Your task to perform on an android device: Show the shopping cart on costco. Add "razer huntsman" to the cart on costco, then select checkout. Image 0: 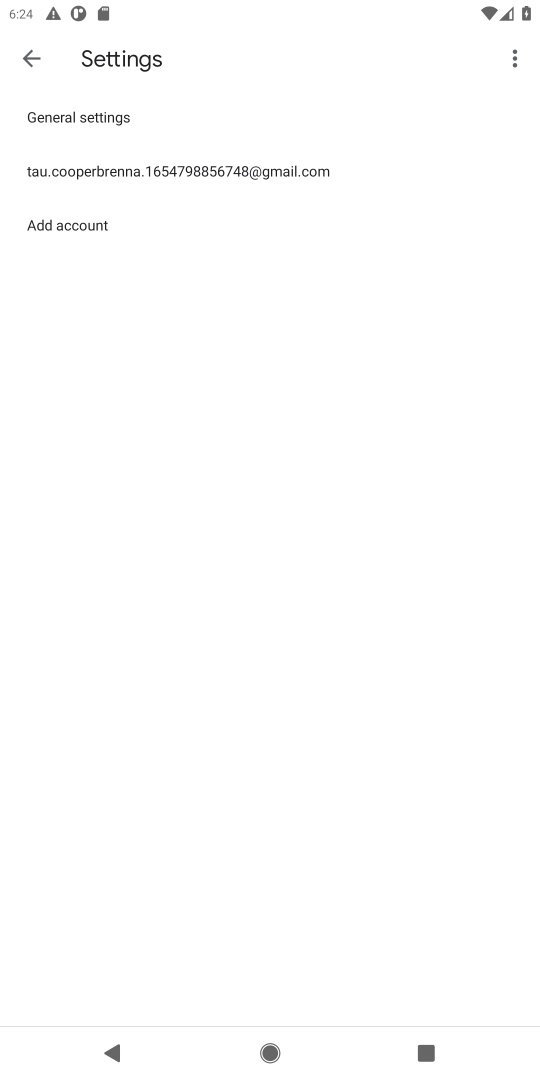
Step 0: press home button
Your task to perform on an android device: Show the shopping cart on costco. Add "razer huntsman" to the cart on costco, then select checkout. Image 1: 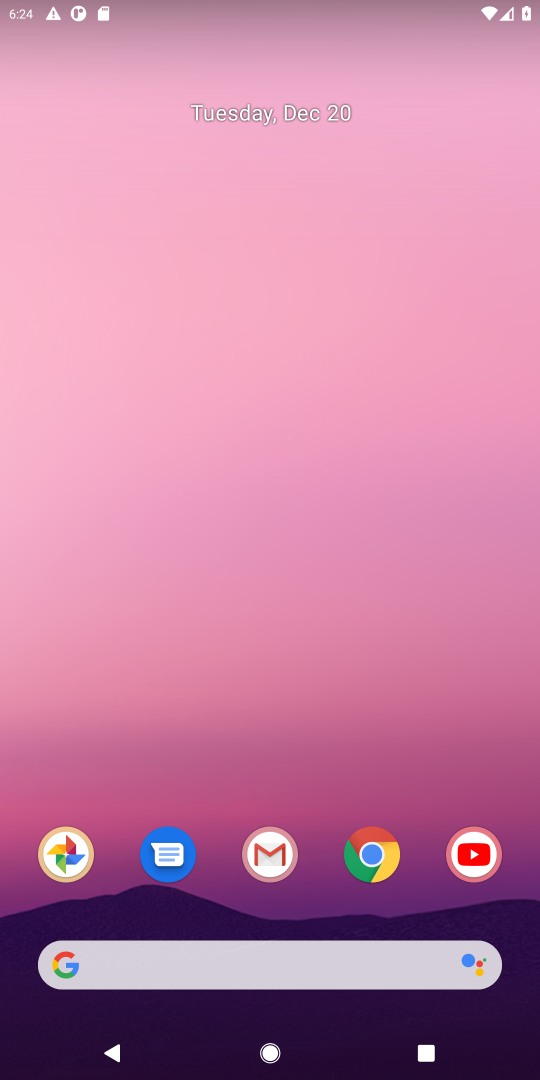
Step 1: click (361, 855)
Your task to perform on an android device: Show the shopping cart on costco. Add "razer huntsman" to the cart on costco, then select checkout. Image 2: 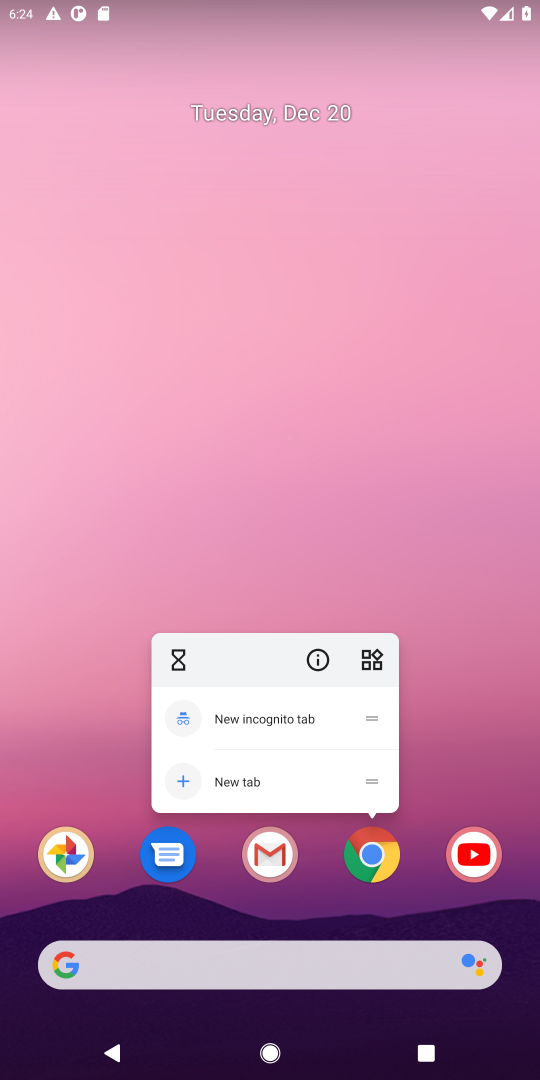
Step 2: click (365, 860)
Your task to perform on an android device: Show the shopping cart on costco. Add "razer huntsman" to the cart on costco, then select checkout. Image 3: 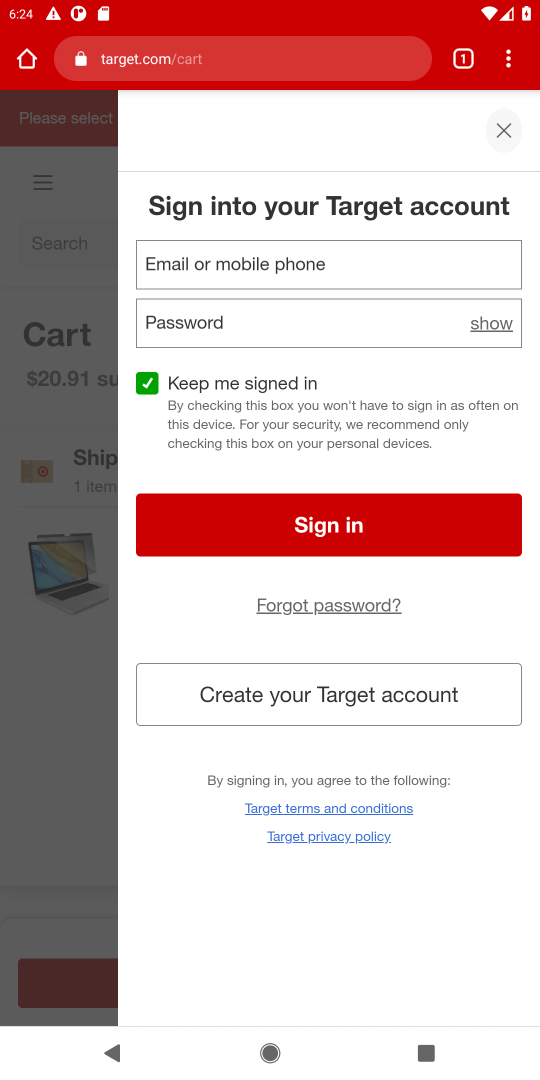
Step 3: click (170, 65)
Your task to perform on an android device: Show the shopping cart on costco. Add "razer huntsman" to the cart on costco, then select checkout. Image 4: 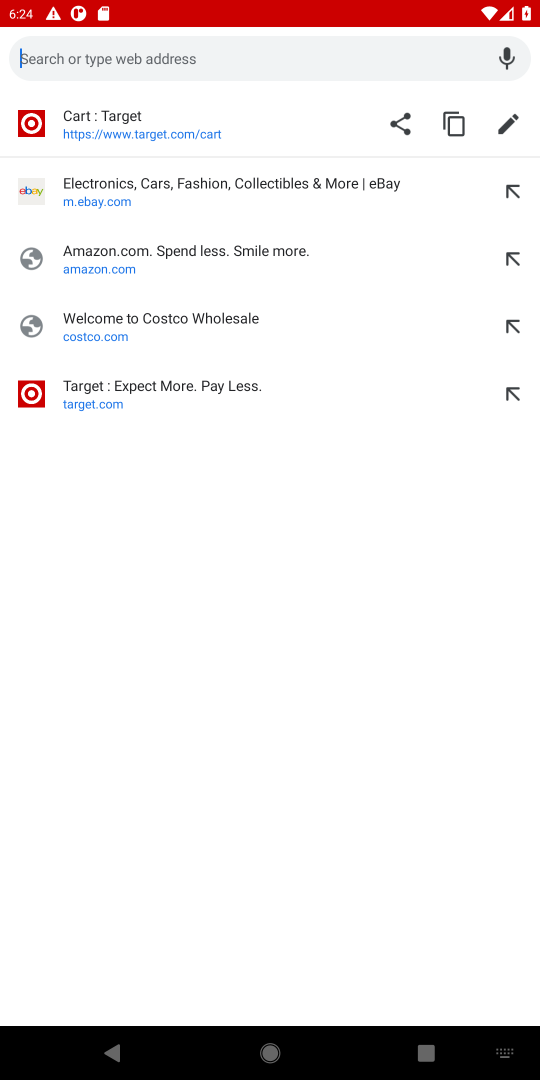
Step 4: click (85, 335)
Your task to perform on an android device: Show the shopping cart on costco. Add "razer huntsman" to the cart on costco, then select checkout. Image 5: 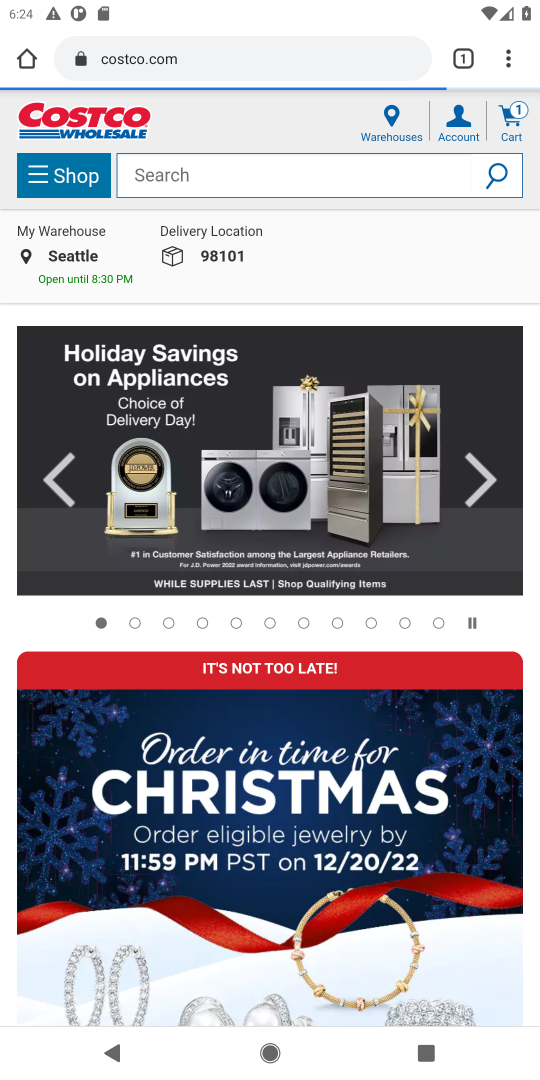
Step 5: click (511, 130)
Your task to perform on an android device: Show the shopping cart on costco. Add "razer huntsman" to the cart on costco, then select checkout. Image 6: 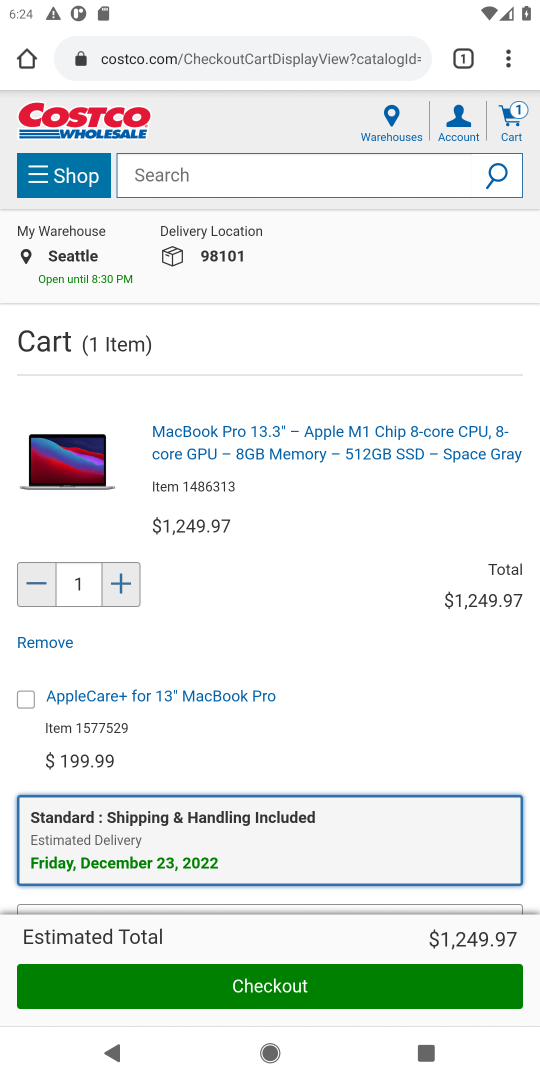
Step 6: click (140, 161)
Your task to perform on an android device: Show the shopping cart on costco. Add "razer huntsman" to the cart on costco, then select checkout. Image 7: 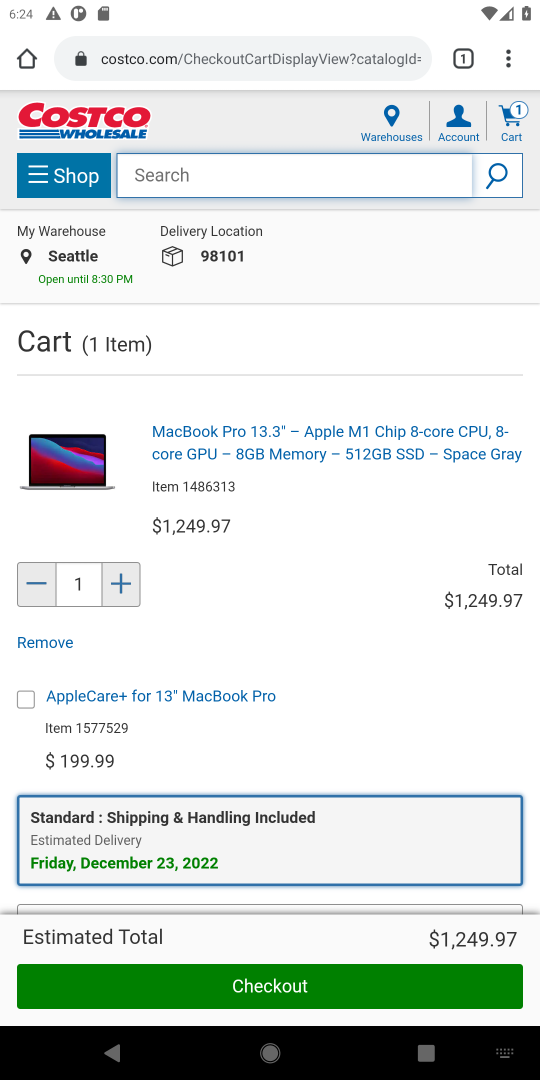
Step 7: type "razer huntsman"
Your task to perform on an android device: Show the shopping cart on costco. Add "razer huntsman" to the cart on costco, then select checkout. Image 8: 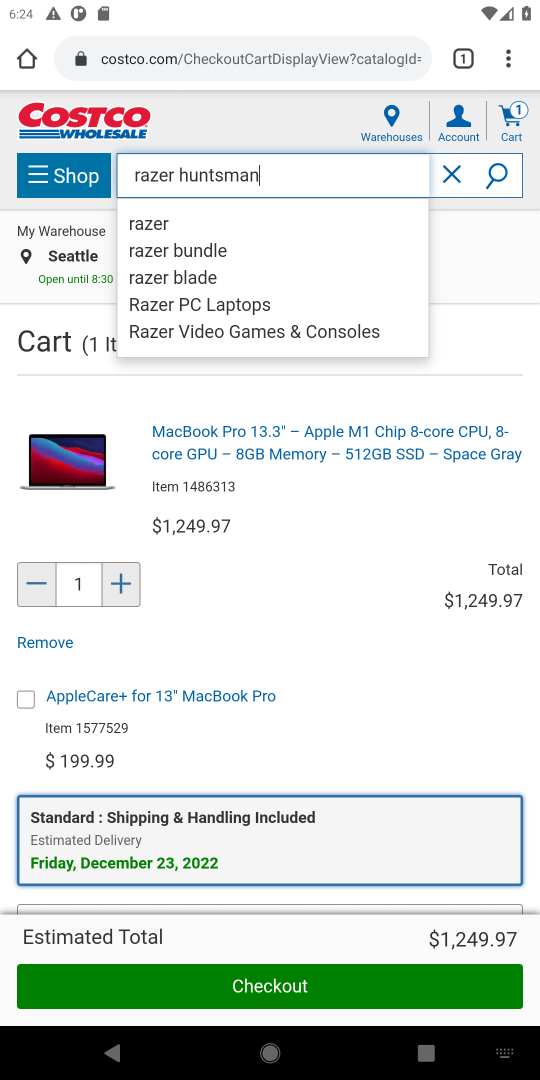
Step 8: click (493, 186)
Your task to perform on an android device: Show the shopping cart on costco. Add "razer huntsman" to the cart on costco, then select checkout. Image 9: 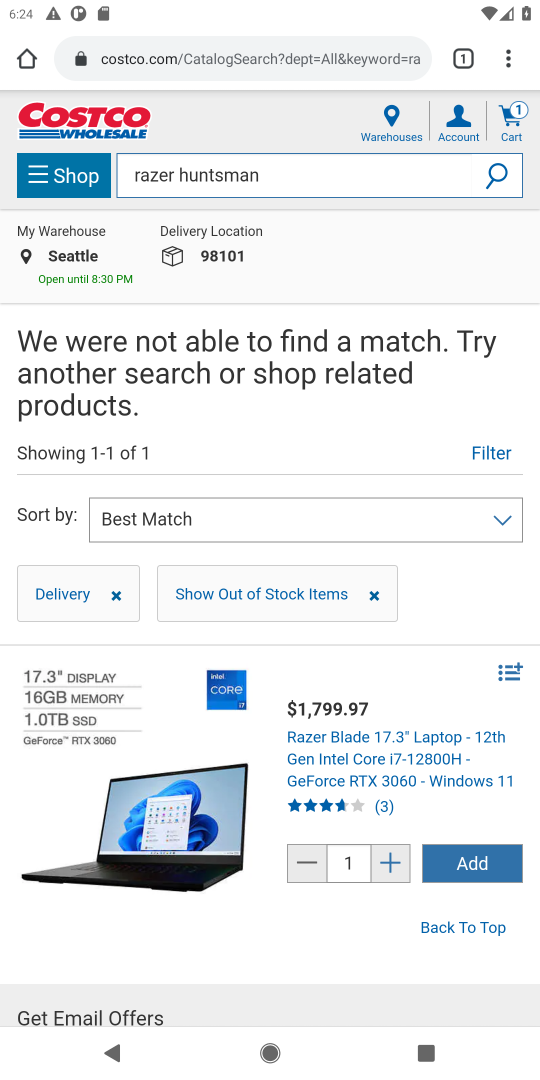
Step 9: task complete